Your task to perform on an android device: Turn on the flashlight Image 0: 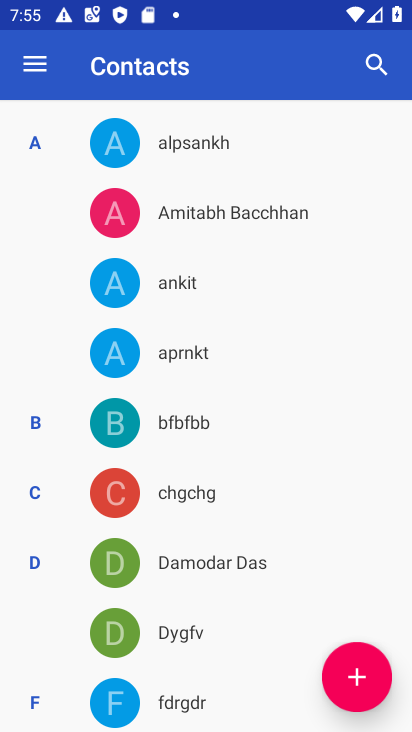
Step 0: press home button
Your task to perform on an android device: Turn on the flashlight Image 1: 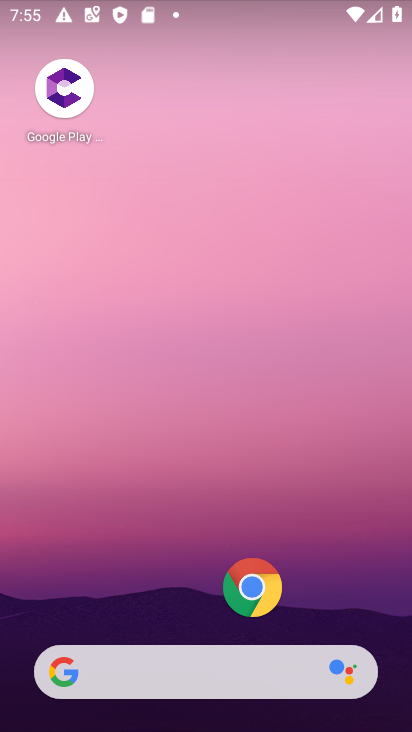
Step 1: drag from (121, 584) to (121, 150)
Your task to perform on an android device: Turn on the flashlight Image 2: 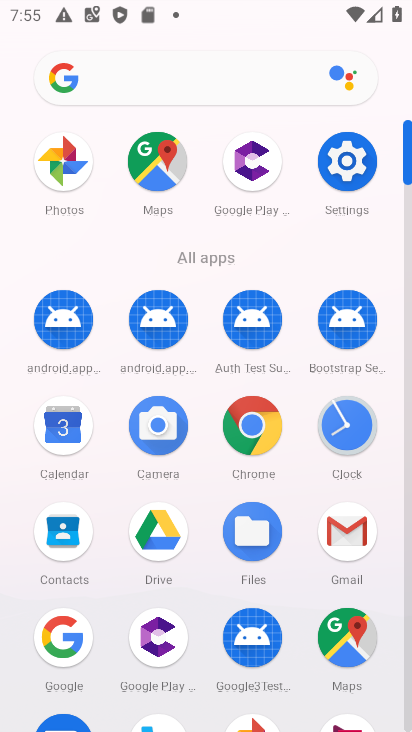
Step 2: click (360, 145)
Your task to perform on an android device: Turn on the flashlight Image 3: 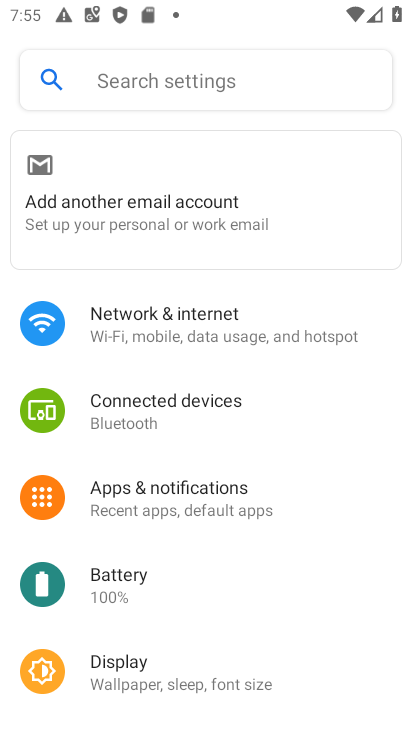
Step 3: task complete